Your task to perform on an android device: check battery use Image 0: 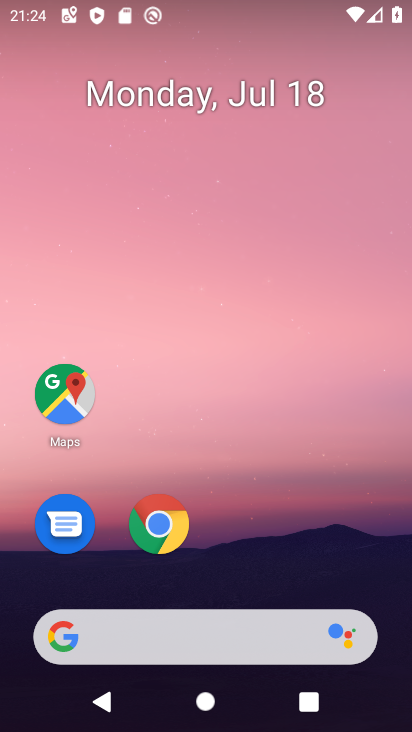
Step 0: drag from (283, 529) to (351, 48)
Your task to perform on an android device: check battery use Image 1: 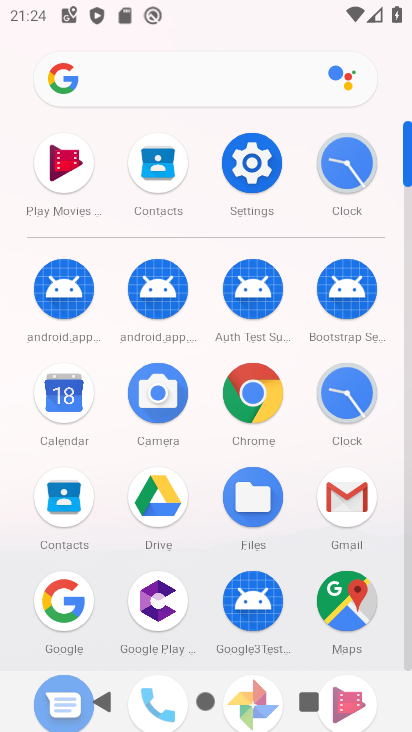
Step 1: click (242, 165)
Your task to perform on an android device: check battery use Image 2: 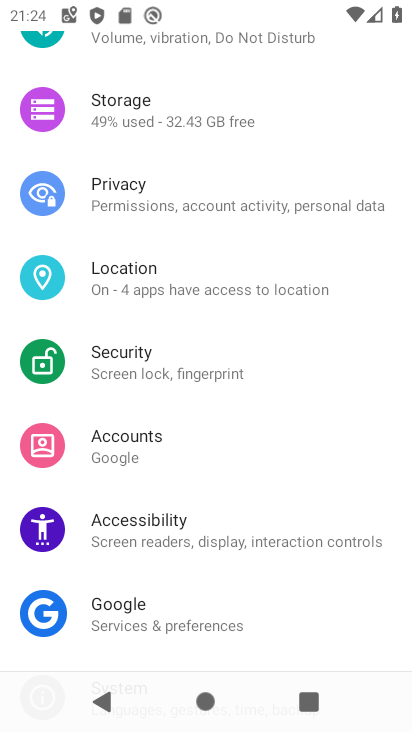
Step 2: drag from (241, 173) to (247, 637)
Your task to perform on an android device: check battery use Image 3: 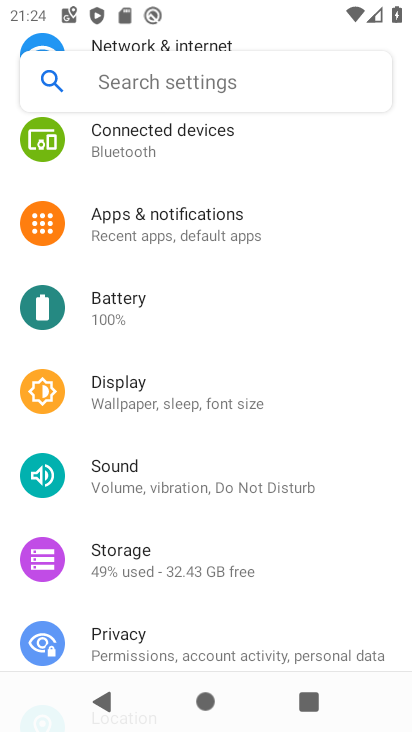
Step 3: click (181, 305)
Your task to perform on an android device: check battery use Image 4: 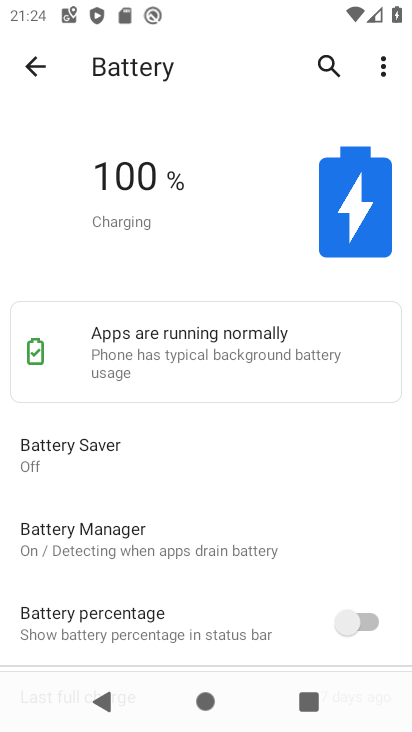
Step 4: click (379, 68)
Your task to perform on an android device: check battery use Image 5: 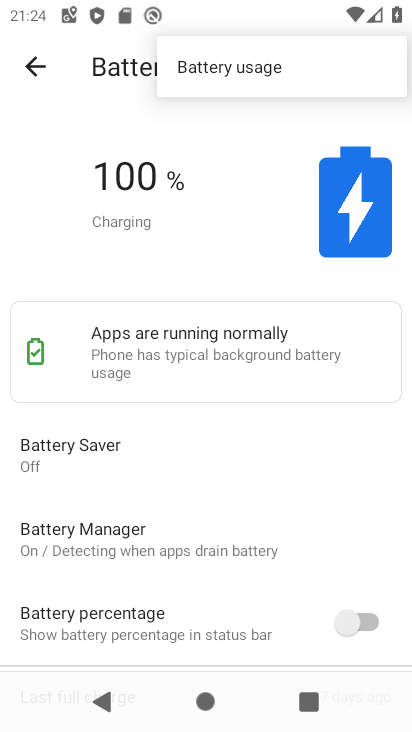
Step 5: click (275, 57)
Your task to perform on an android device: check battery use Image 6: 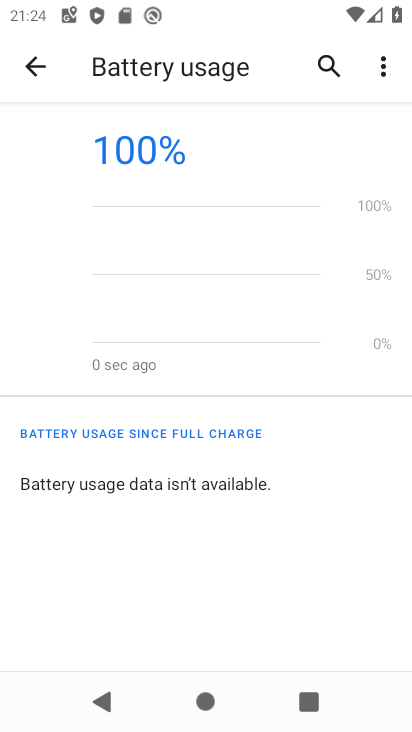
Step 6: task complete